Your task to perform on an android device: turn off sleep mode Image 0: 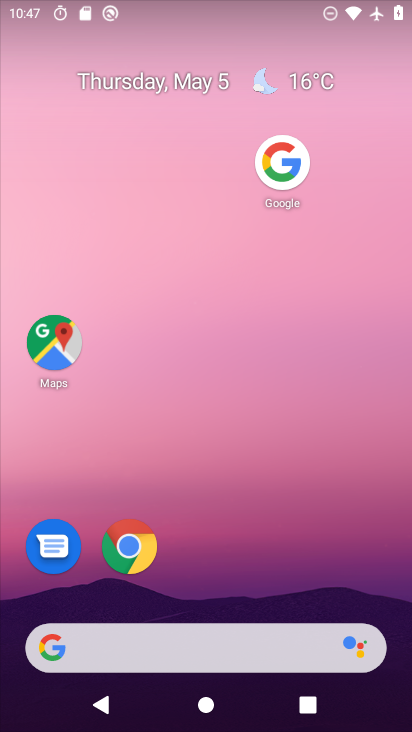
Step 0: drag from (131, 638) to (192, 87)
Your task to perform on an android device: turn off sleep mode Image 1: 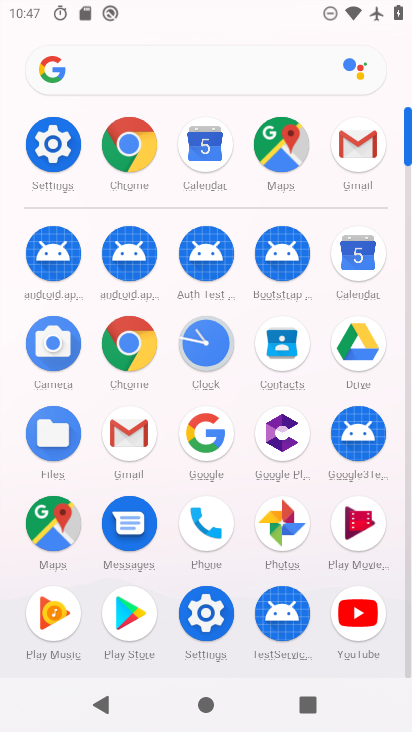
Step 1: click (48, 148)
Your task to perform on an android device: turn off sleep mode Image 2: 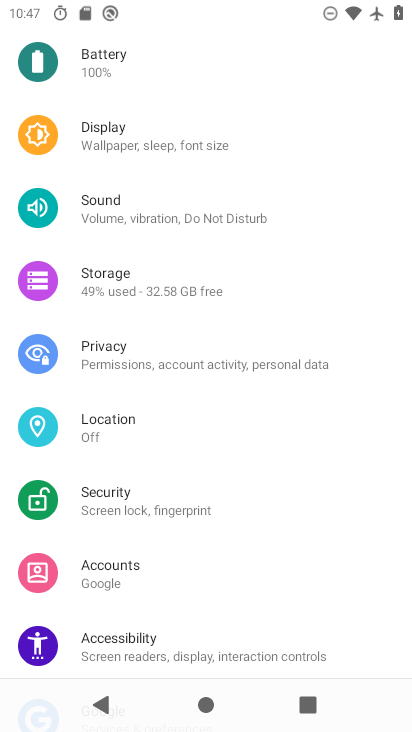
Step 2: drag from (161, 540) to (382, 63)
Your task to perform on an android device: turn off sleep mode Image 3: 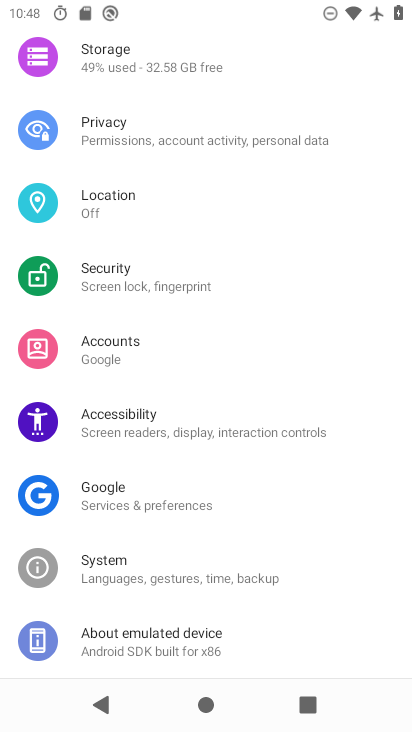
Step 3: drag from (304, 75) to (251, 586)
Your task to perform on an android device: turn off sleep mode Image 4: 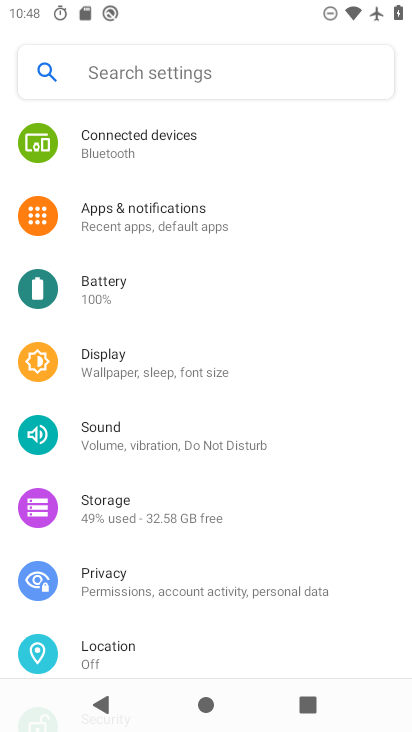
Step 4: click (163, 363)
Your task to perform on an android device: turn off sleep mode Image 5: 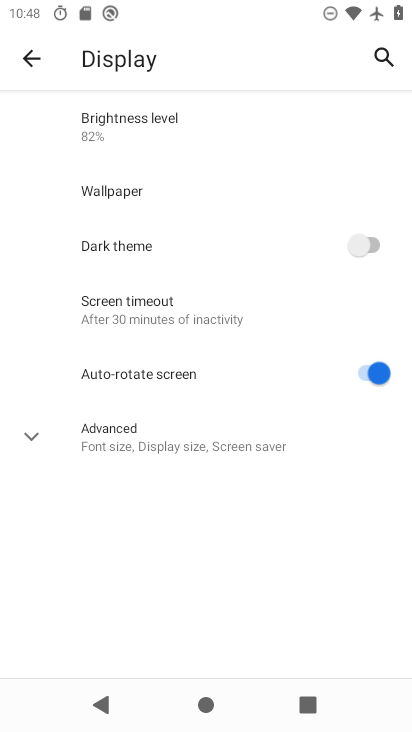
Step 5: task complete